Your task to perform on an android device: search for starred emails in the gmail app Image 0: 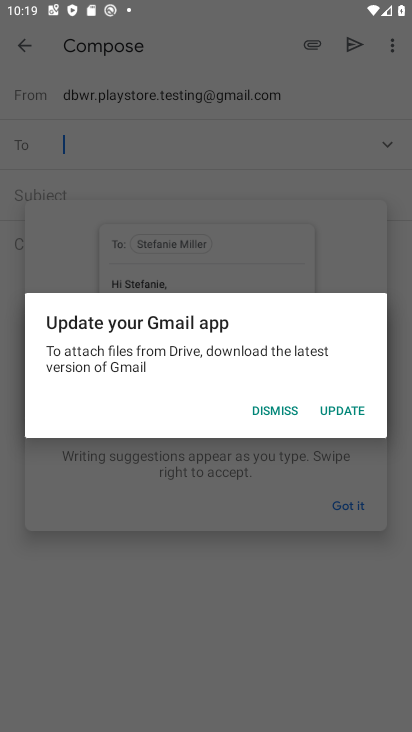
Step 0: press home button
Your task to perform on an android device: search for starred emails in the gmail app Image 1: 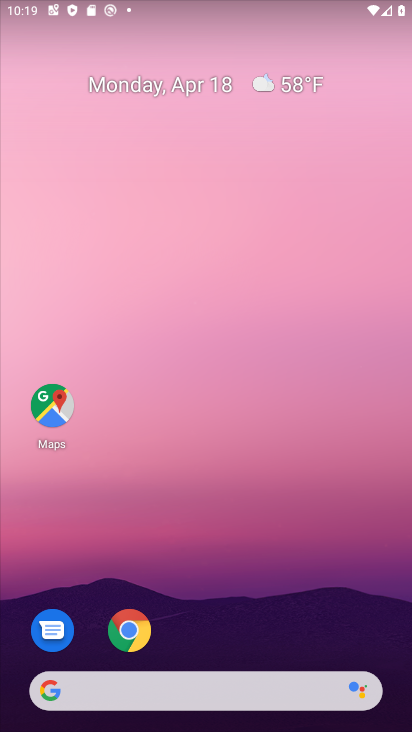
Step 1: drag from (230, 641) to (314, 28)
Your task to perform on an android device: search for starred emails in the gmail app Image 2: 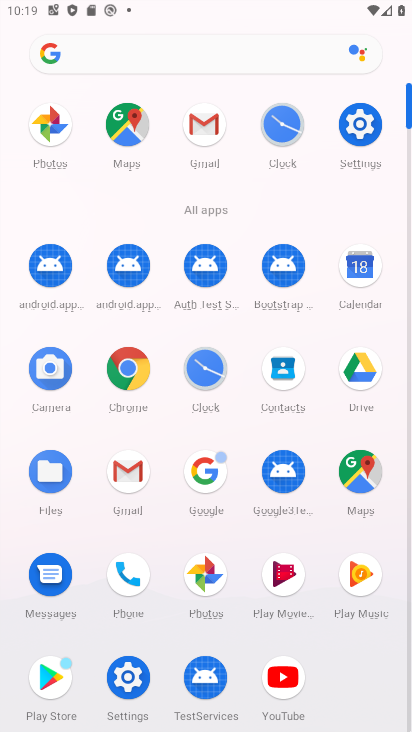
Step 2: click (212, 125)
Your task to perform on an android device: search for starred emails in the gmail app Image 3: 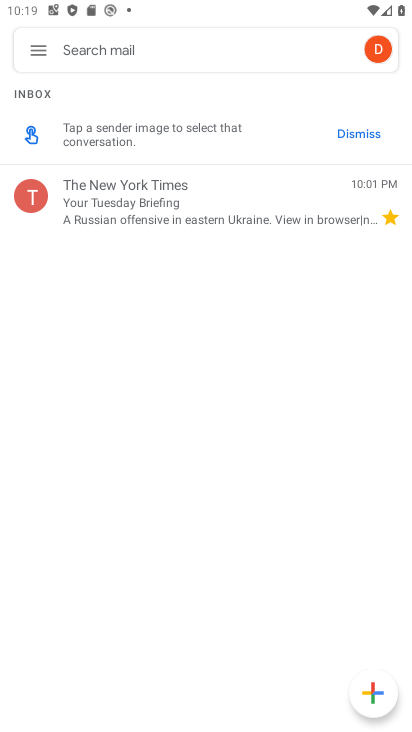
Step 3: click (27, 50)
Your task to perform on an android device: search for starred emails in the gmail app Image 4: 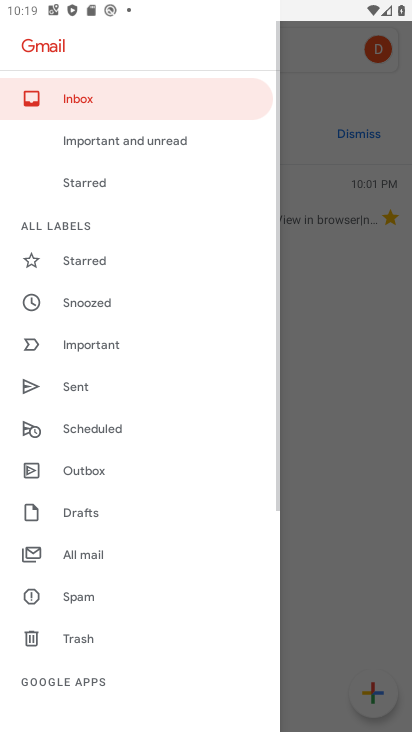
Step 4: click (134, 195)
Your task to perform on an android device: search for starred emails in the gmail app Image 5: 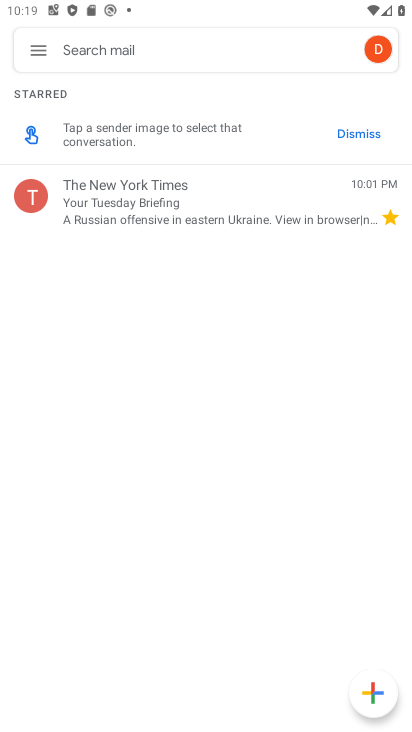
Step 5: task complete